Your task to perform on an android device: Search for vegetarian restaurants on Maps Image 0: 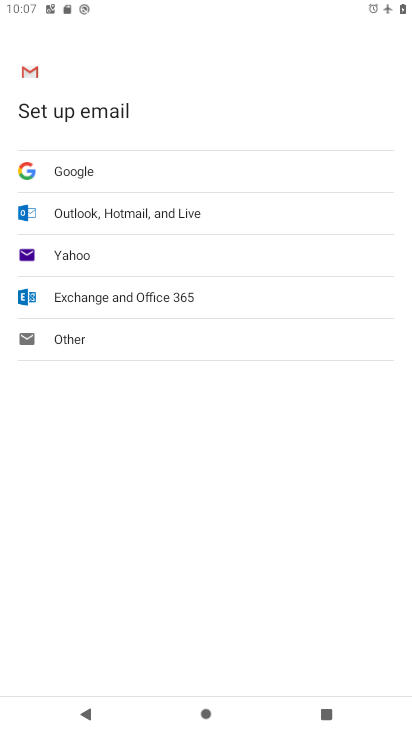
Step 0: press home button
Your task to perform on an android device: Search for vegetarian restaurants on Maps Image 1: 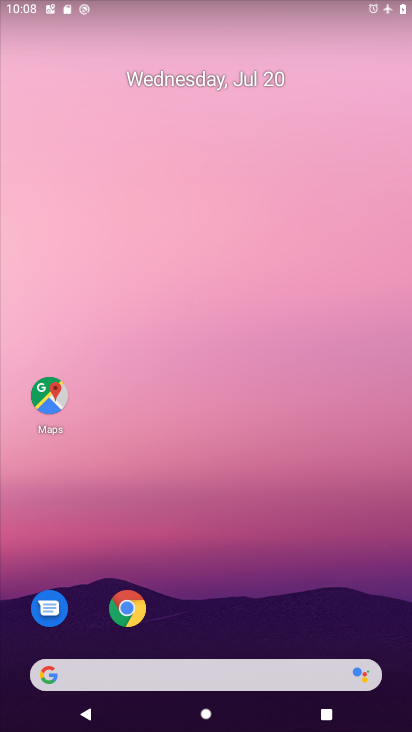
Step 1: click (55, 379)
Your task to perform on an android device: Search for vegetarian restaurants on Maps Image 2: 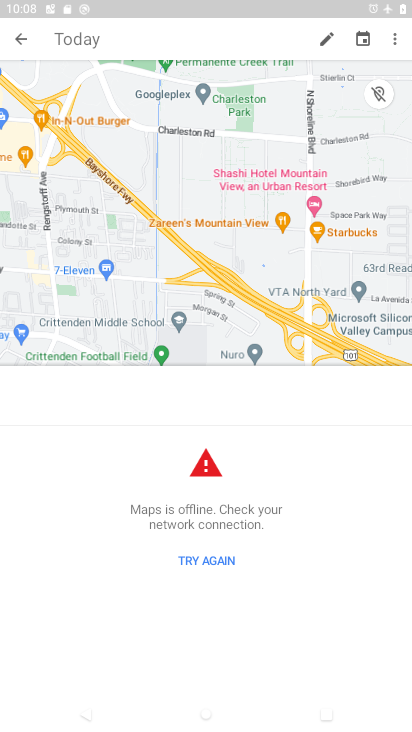
Step 2: click (17, 46)
Your task to perform on an android device: Search for vegetarian restaurants on Maps Image 3: 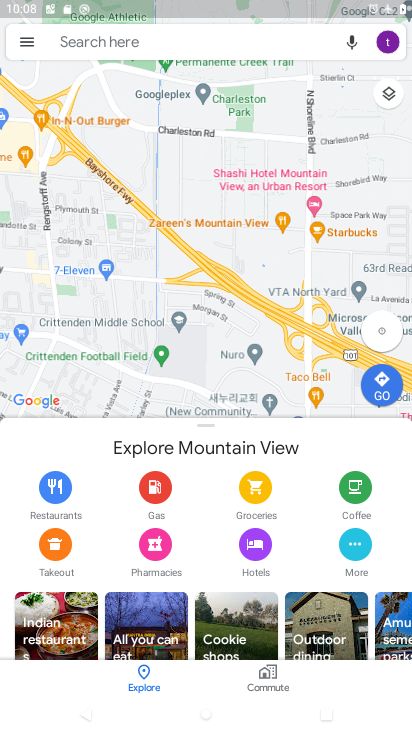
Step 3: click (245, 37)
Your task to perform on an android device: Search for vegetarian restaurants on Maps Image 4: 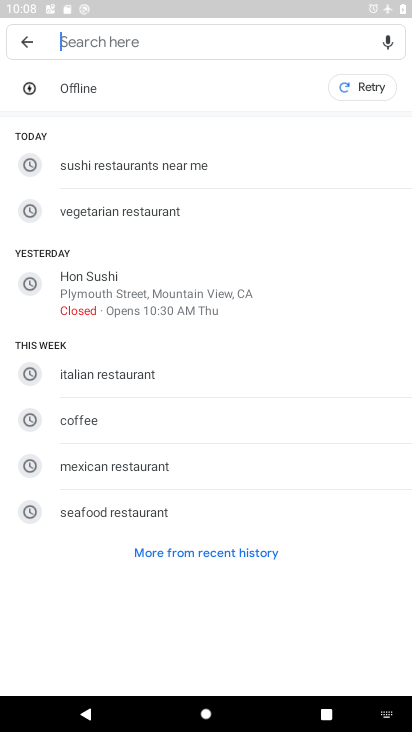
Step 4: type " vegetarian restaurants "
Your task to perform on an android device: Search for vegetarian restaurants on Maps Image 5: 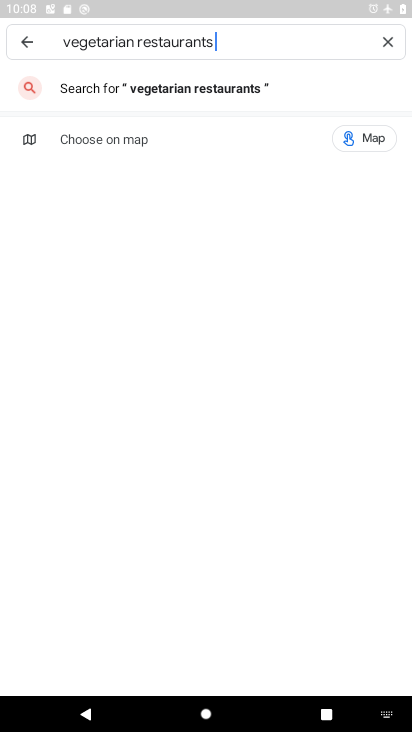
Step 5: click (226, 77)
Your task to perform on an android device: Search for vegetarian restaurants on Maps Image 6: 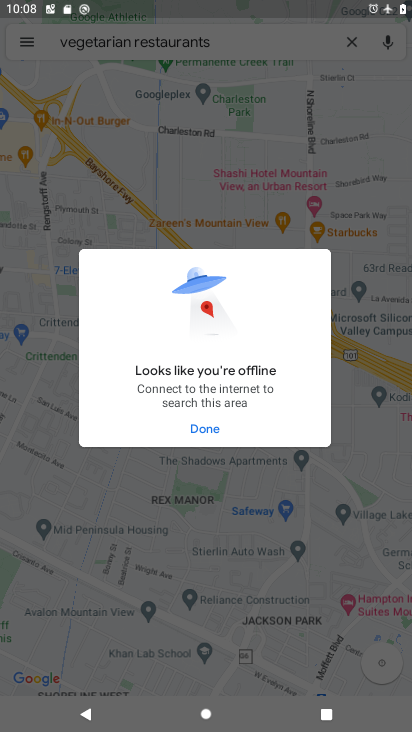
Step 6: click (215, 437)
Your task to perform on an android device: Search for vegetarian restaurants on Maps Image 7: 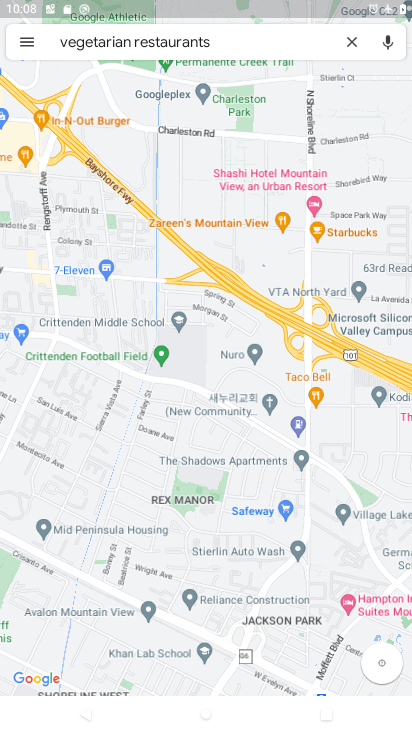
Step 7: task complete